Your task to perform on an android device: Show me popular videos on Youtube Image 0: 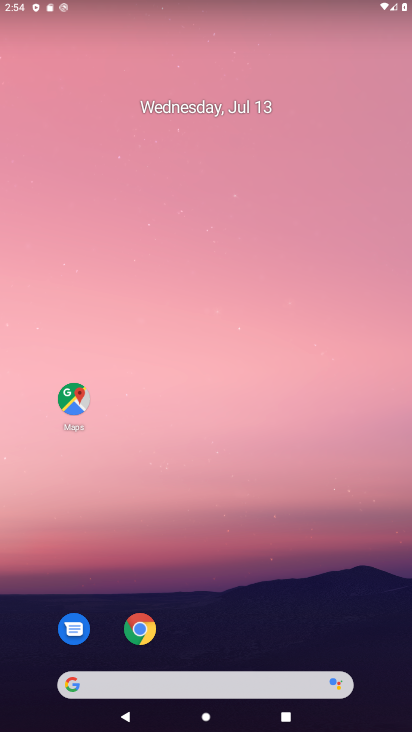
Step 0: drag from (360, 580) to (275, 133)
Your task to perform on an android device: Show me popular videos on Youtube Image 1: 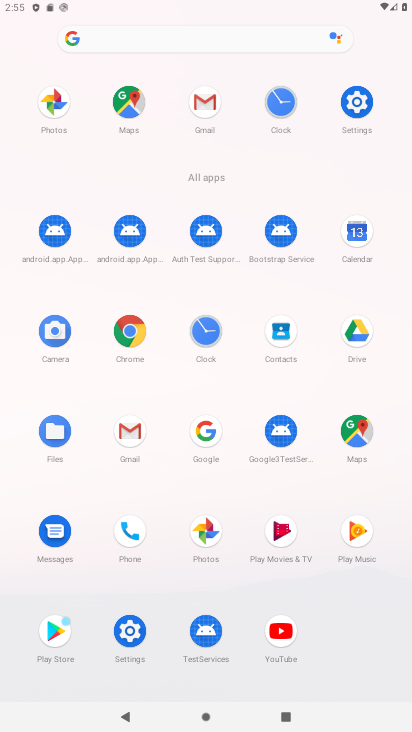
Step 1: click (280, 636)
Your task to perform on an android device: Show me popular videos on Youtube Image 2: 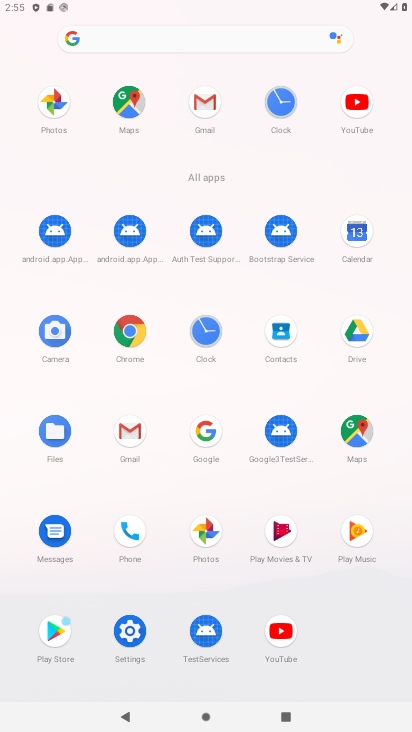
Step 2: click (280, 636)
Your task to perform on an android device: Show me popular videos on Youtube Image 3: 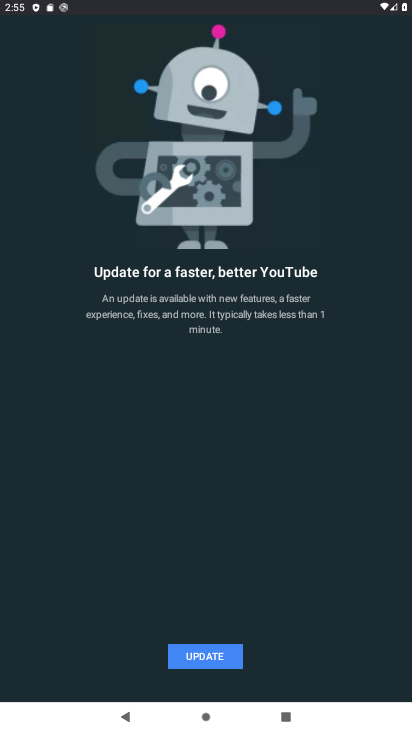
Step 3: click (230, 662)
Your task to perform on an android device: Show me popular videos on Youtube Image 4: 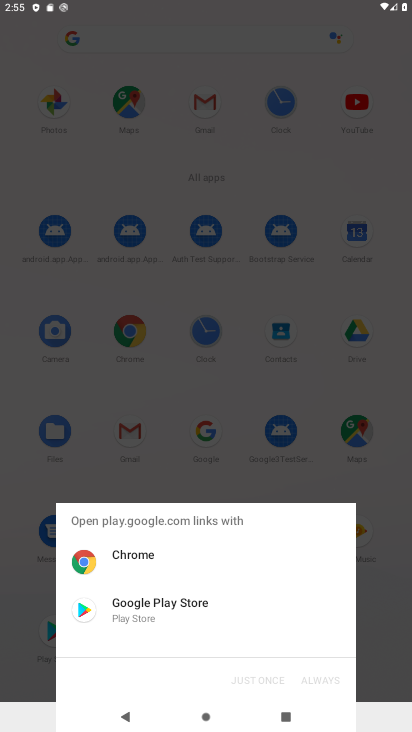
Step 4: click (165, 597)
Your task to perform on an android device: Show me popular videos on Youtube Image 5: 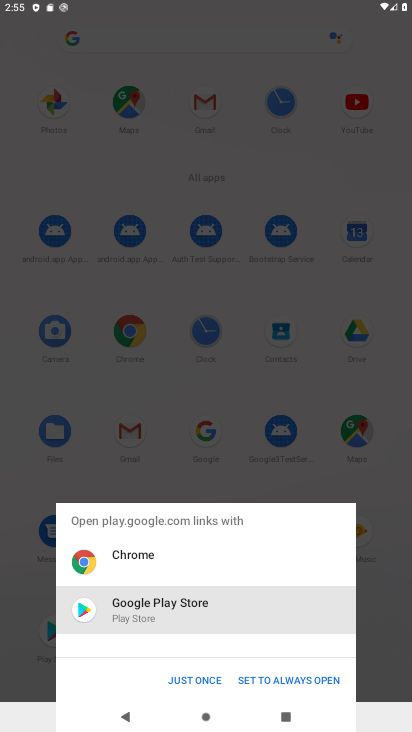
Step 5: click (181, 682)
Your task to perform on an android device: Show me popular videos on Youtube Image 6: 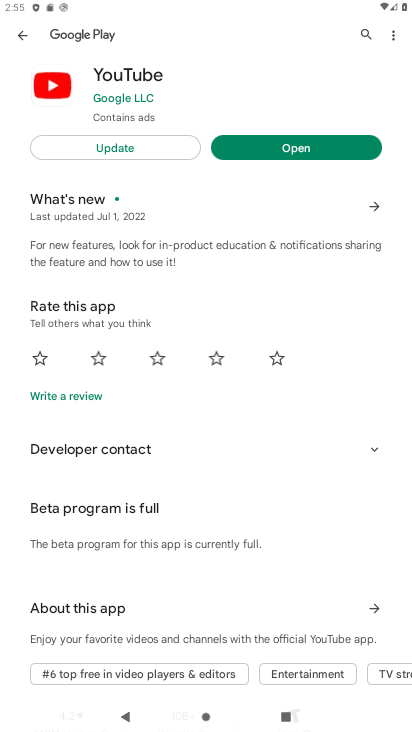
Step 6: click (163, 148)
Your task to perform on an android device: Show me popular videos on Youtube Image 7: 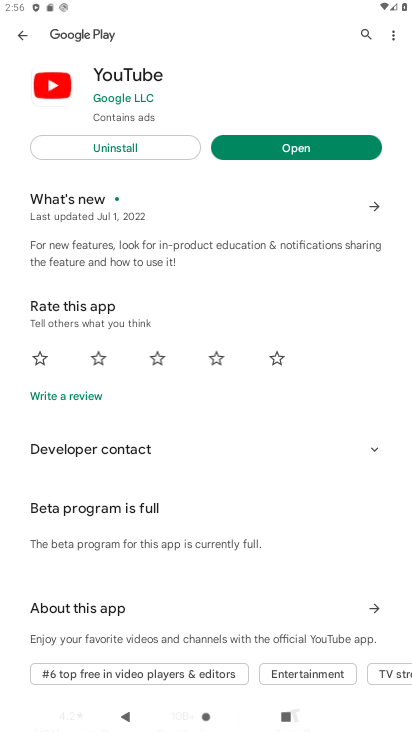
Step 7: click (260, 149)
Your task to perform on an android device: Show me popular videos on Youtube Image 8: 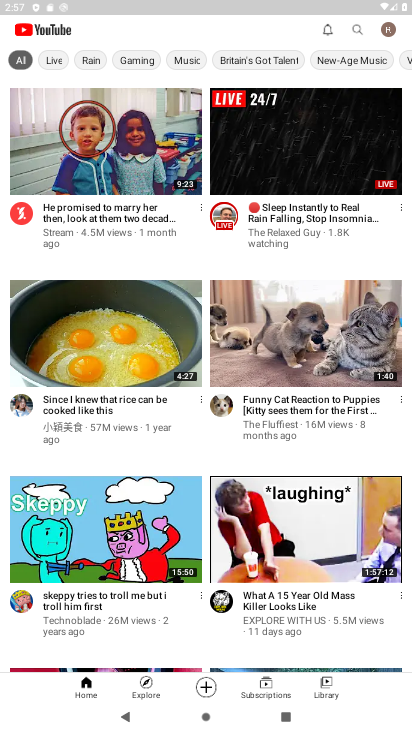
Step 8: click (91, 679)
Your task to perform on an android device: Show me popular videos on Youtube Image 9: 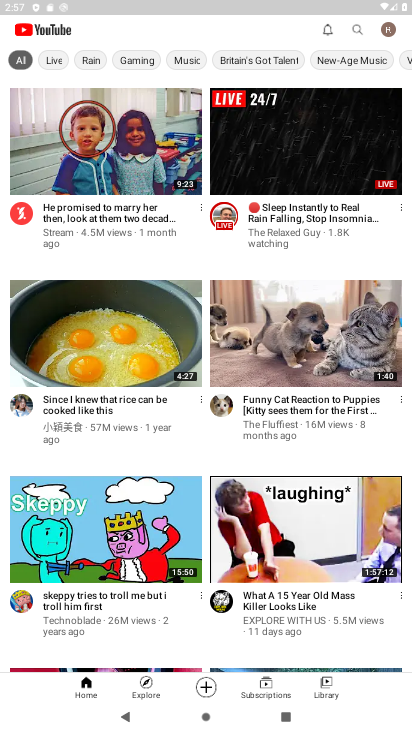
Step 9: drag from (194, 98) to (204, 246)
Your task to perform on an android device: Show me popular videos on Youtube Image 10: 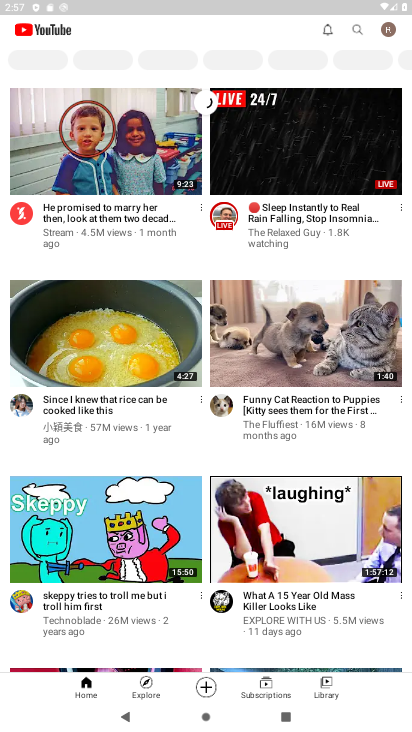
Step 10: click (151, 689)
Your task to perform on an android device: Show me popular videos on Youtube Image 11: 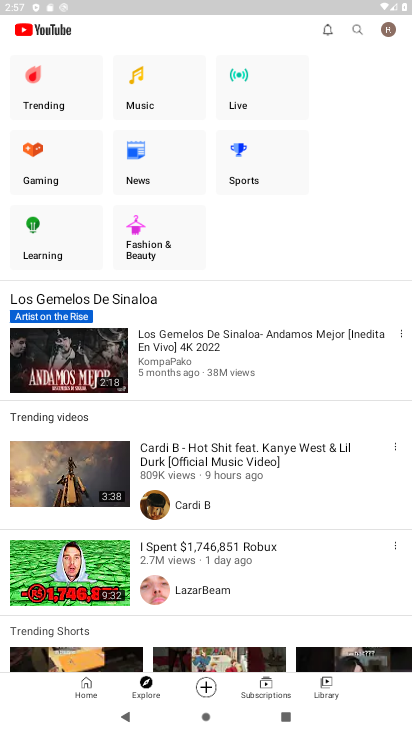
Step 11: click (50, 73)
Your task to perform on an android device: Show me popular videos on Youtube Image 12: 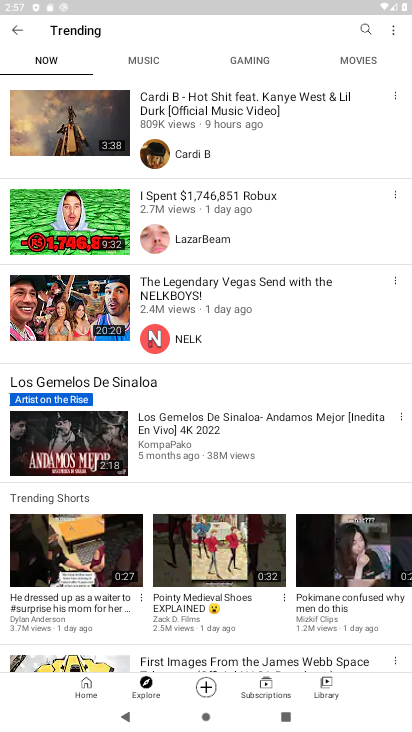
Step 12: task complete